Your task to perform on an android device: Open location settings Image 0: 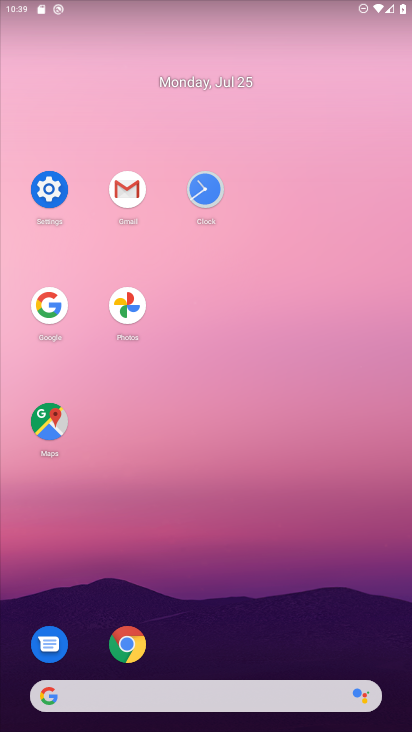
Step 0: click (51, 176)
Your task to perform on an android device: Open location settings Image 1: 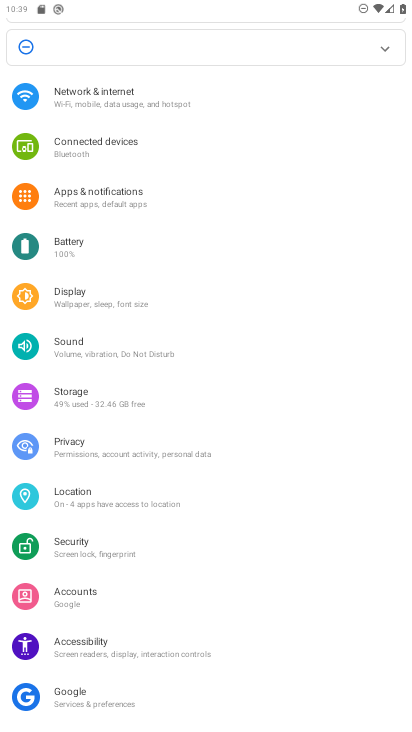
Step 1: click (164, 484)
Your task to perform on an android device: Open location settings Image 2: 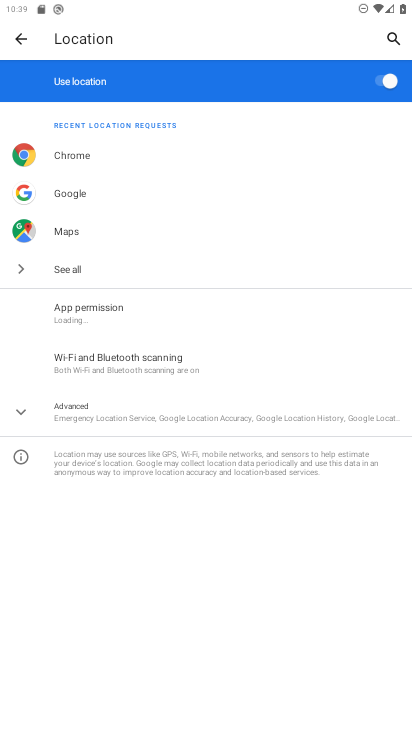
Step 2: task complete